Your task to perform on an android device: change the clock style Image 0: 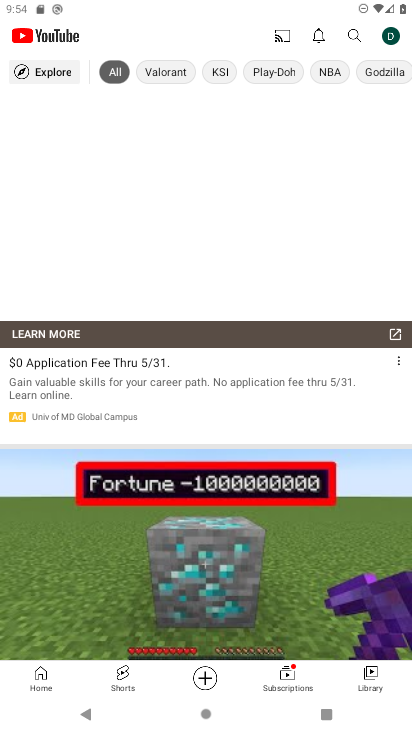
Step 0: press home button
Your task to perform on an android device: change the clock style Image 1: 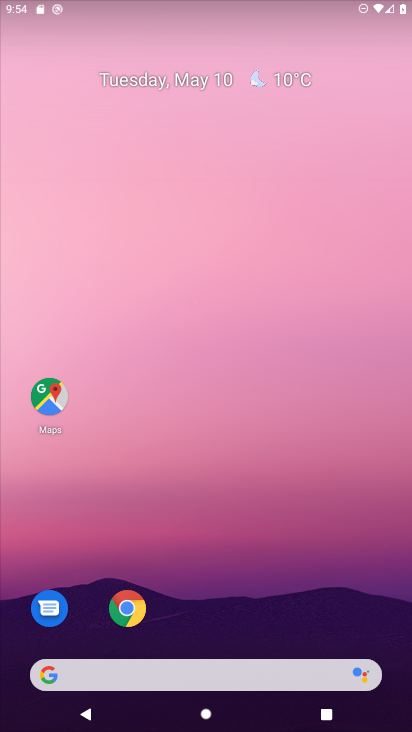
Step 1: drag from (348, 612) to (262, 35)
Your task to perform on an android device: change the clock style Image 2: 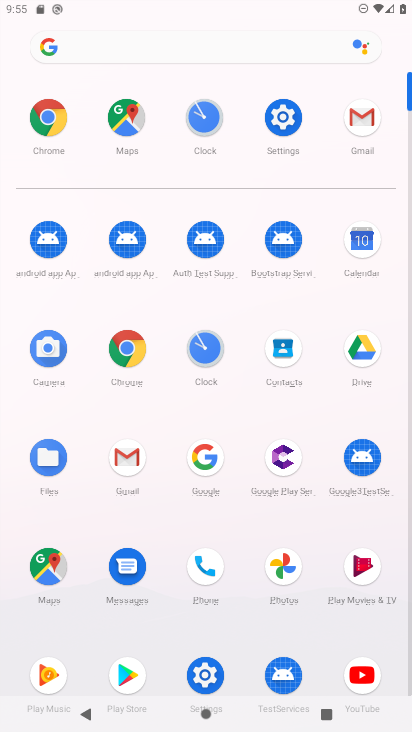
Step 2: click (210, 350)
Your task to perform on an android device: change the clock style Image 3: 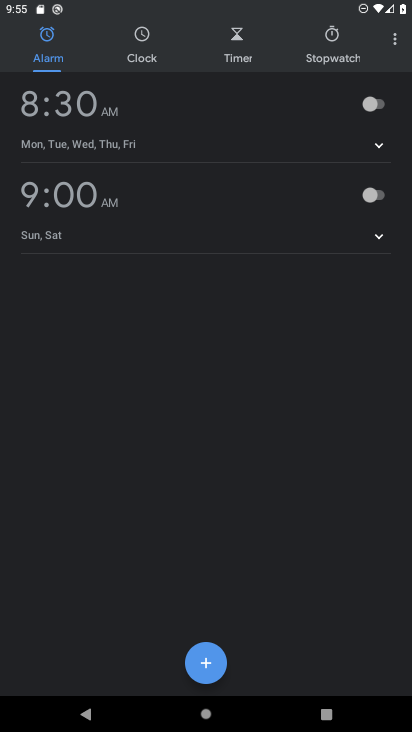
Step 3: click (391, 37)
Your task to perform on an android device: change the clock style Image 4: 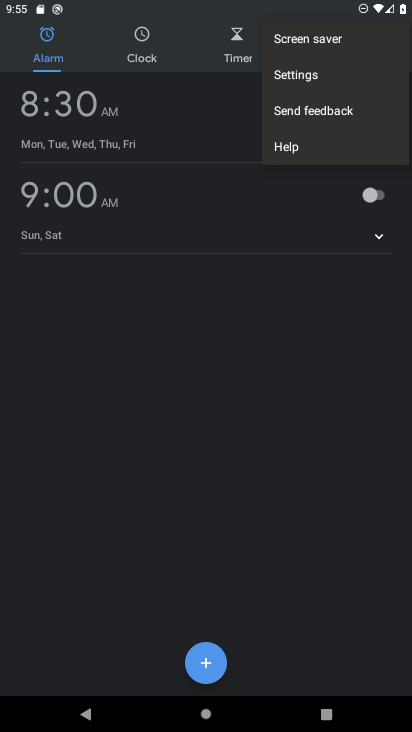
Step 4: click (322, 81)
Your task to perform on an android device: change the clock style Image 5: 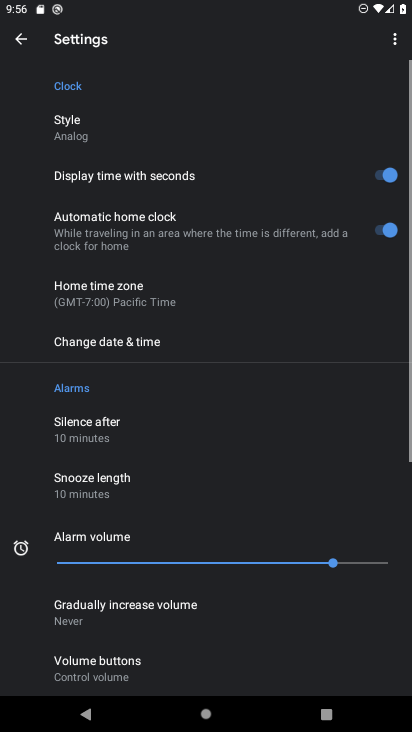
Step 5: click (70, 136)
Your task to perform on an android device: change the clock style Image 6: 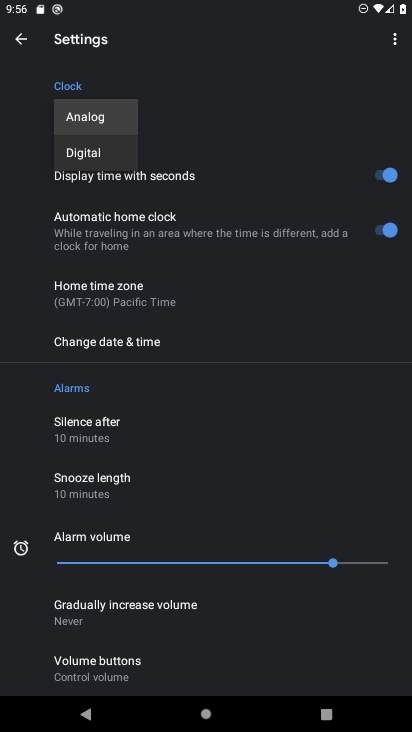
Step 6: click (84, 145)
Your task to perform on an android device: change the clock style Image 7: 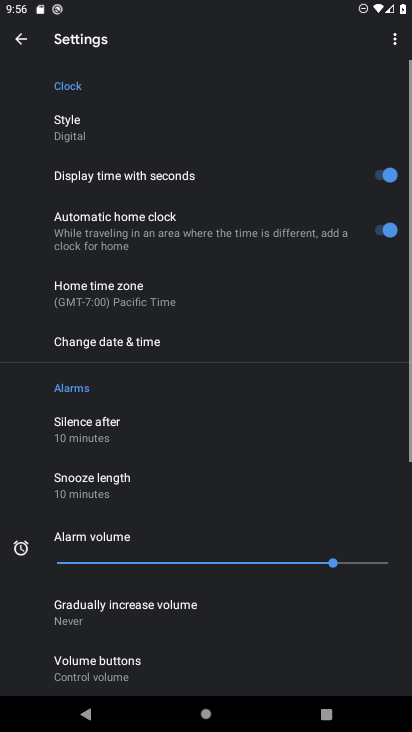
Step 7: task complete